Your task to perform on an android device: remove spam from my inbox in the gmail app Image 0: 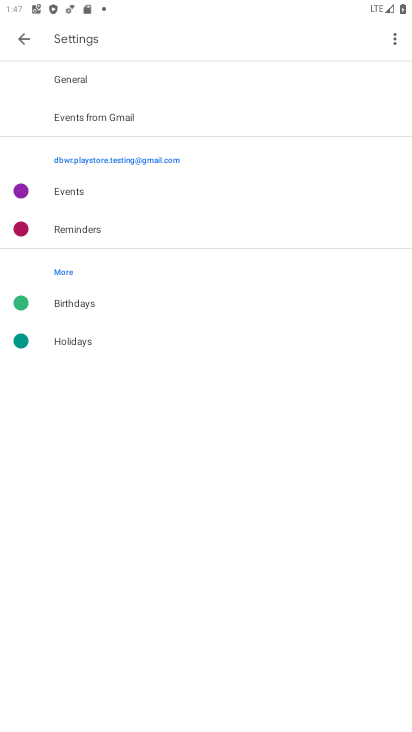
Step 0: press home button
Your task to perform on an android device: remove spam from my inbox in the gmail app Image 1: 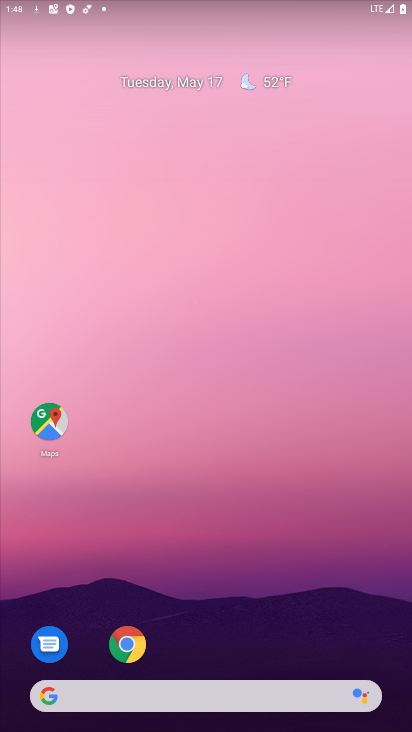
Step 1: drag from (231, 689) to (242, 282)
Your task to perform on an android device: remove spam from my inbox in the gmail app Image 2: 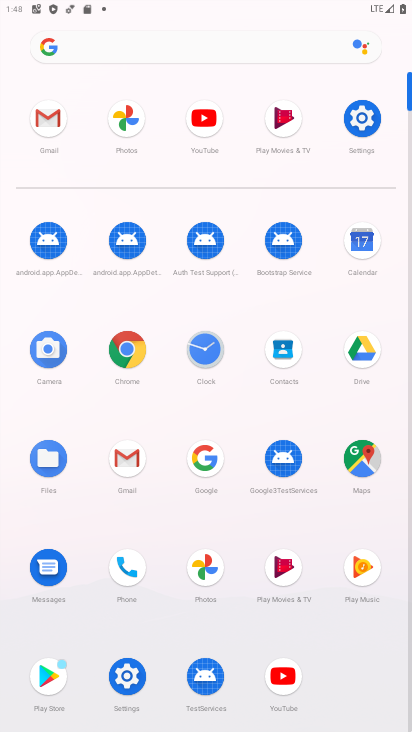
Step 2: click (128, 474)
Your task to perform on an android device: remove spam from my inbox in the gmail app Image 3: 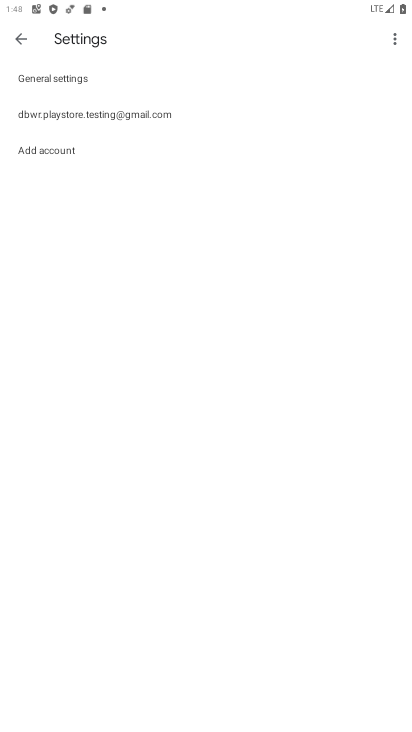
Step 3: click (23, 34)
Your task to perform on an android device: remove spam from my inbox in the gmail app Image 4: 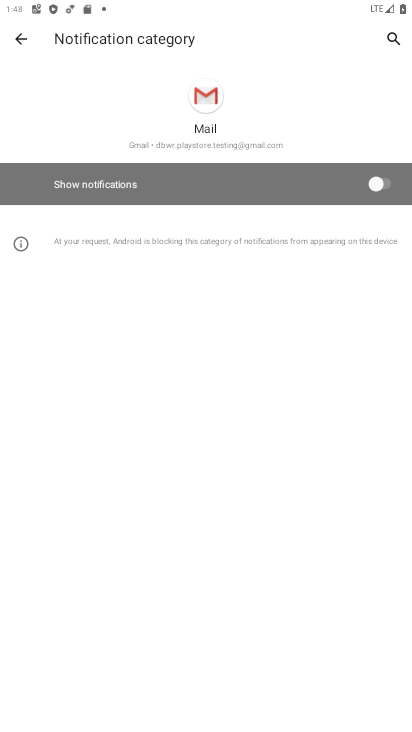
Step 4: click (22, 38)
Your task to perform on an android device: remove spam from my inbox in the gmail app Image 5: 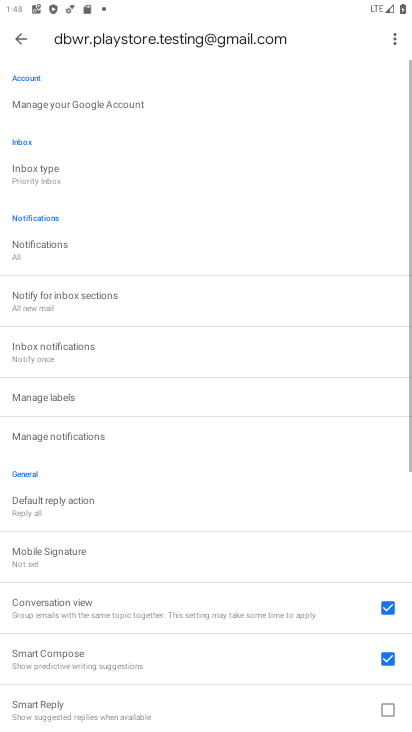
Step 5: click (22, 38)
Your task to perform on an android device: remove spam from my inbox in the gmail app Image 6: 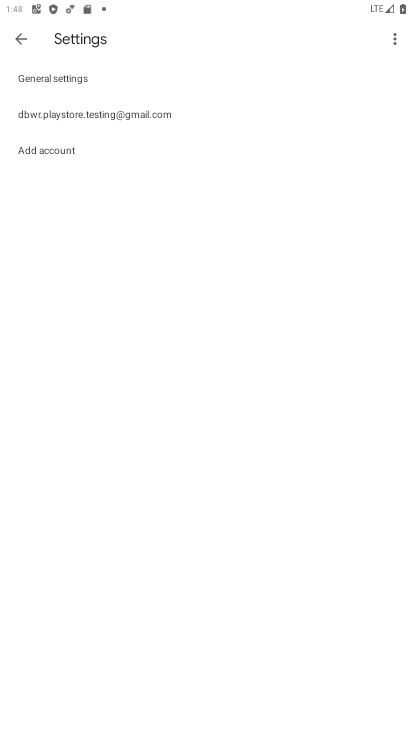
Step 6: click (19, 44)
Your task to perform on an android device: remove spam from my inbox in the gmail app Image 7: 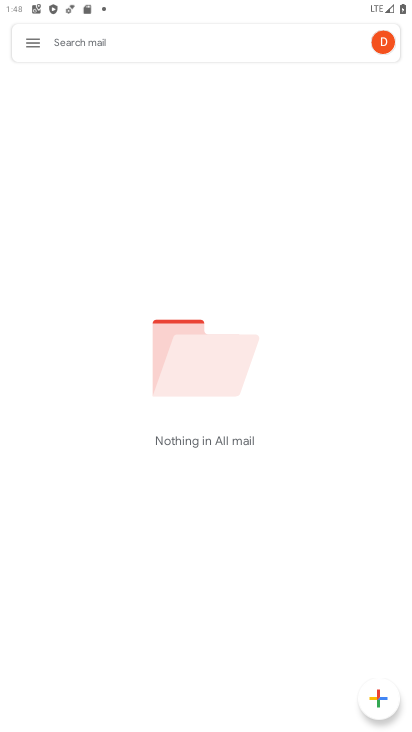
Step 7: click (28, 32)
Your task to perform on an android device: remove spam from my inbox in the gmail app Image 8: 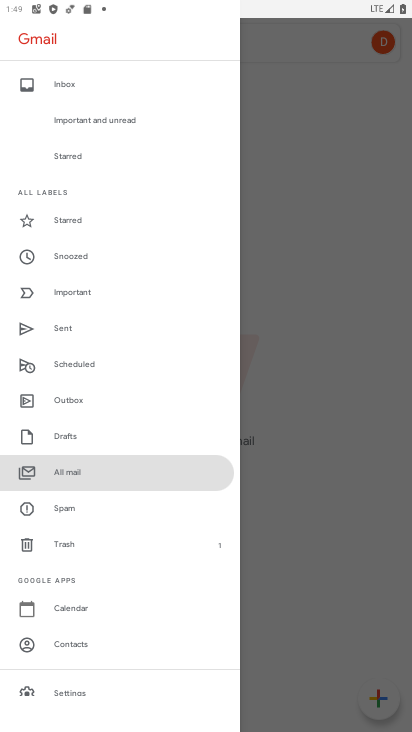
Step 8: click (77, 504)
Your task to perform on an android device: remove spam from my inbox in the gmail app Image 9: 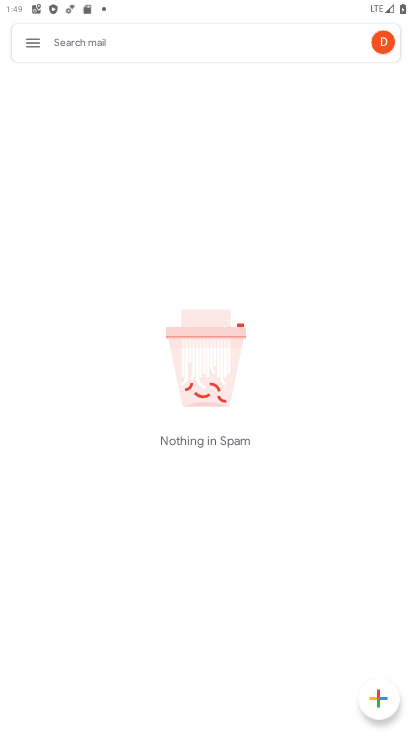
Step 9: task complete